Your task to perform on an android device: Open accessibility settings Image 0: 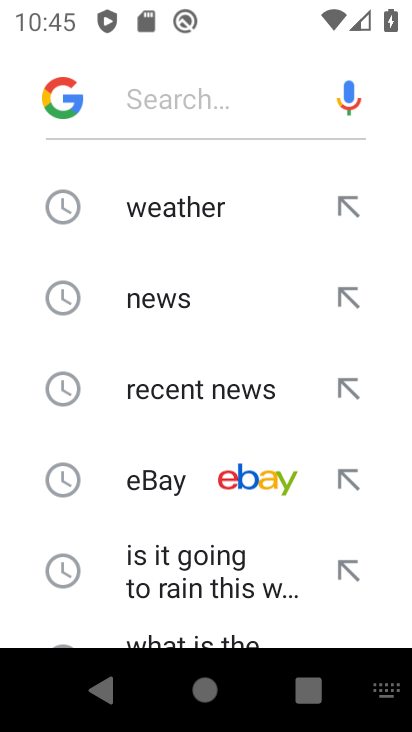
Step 0: press home button
Your task to perform on an android device: Open accessibility settings Image 1: 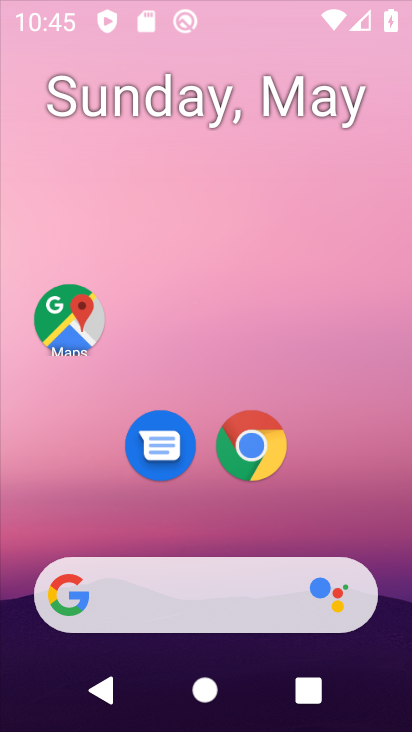
Step 1: drag from (302, 538) to (243, 32)
Your task to perform on an android device: Open accessibility settings Image 2: 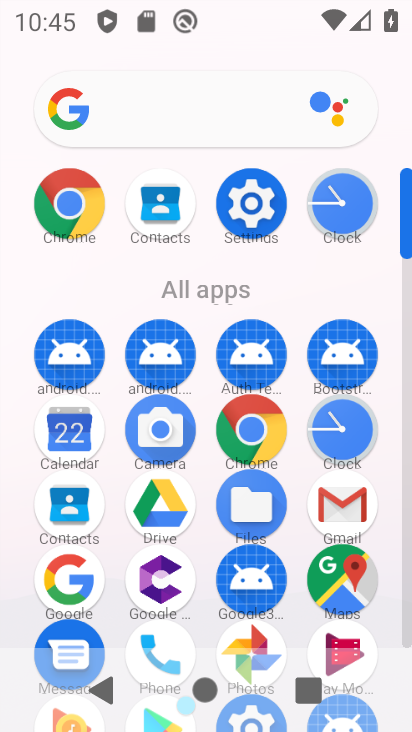
Step 2: click (263, 213)
Your task to perform on an android device: Open accessibility settings Image 3: 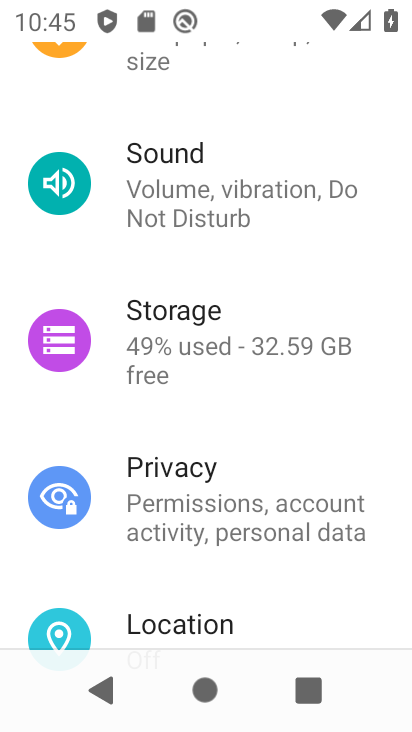
Step 3: drag from (268, 573) to (249, 195)
Your task to perform on an android device: Open accessibility settings Image 4: 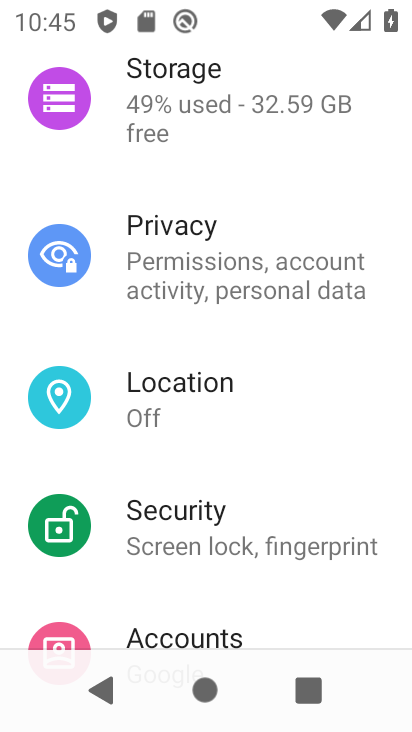
Step 4: drag from (252, 560) to (265, 188)
Your task to perform on an android device: Open accessibility settings Image 5: 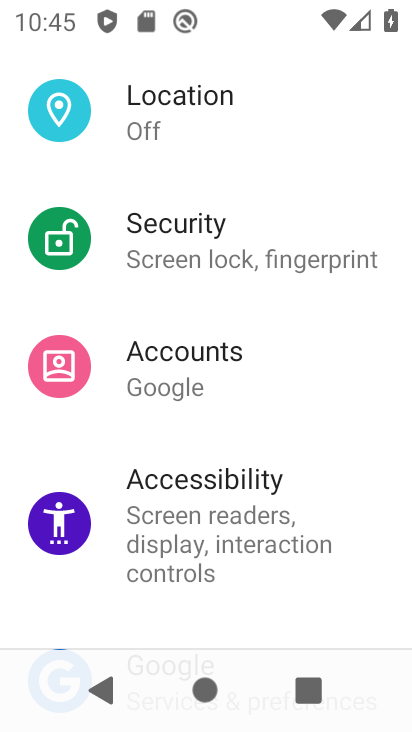
Step 5: click (226, 507)
Your task to perform on an android device: Open accessibility settings Image 6: 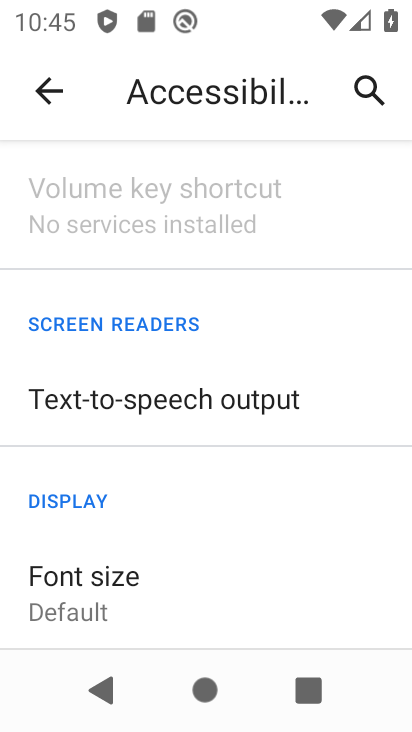
Step 6: task complete